Your task to perform on an android device: Open calendar and show me the second week of next month Image 0: 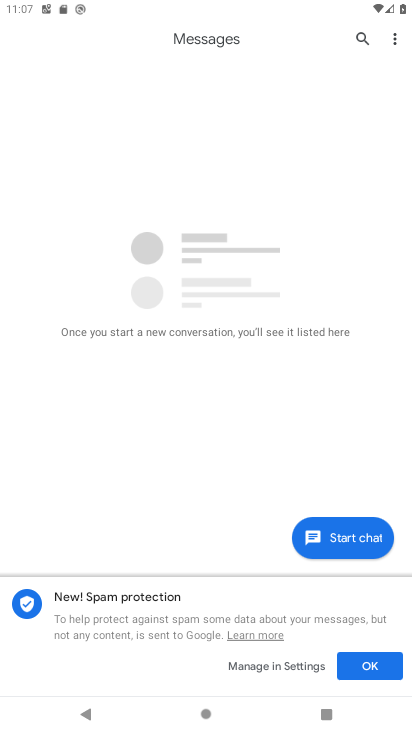
Step 0: press home button
Your task to perform on an android device: Open calendar and show me the second week of next month Image 1: 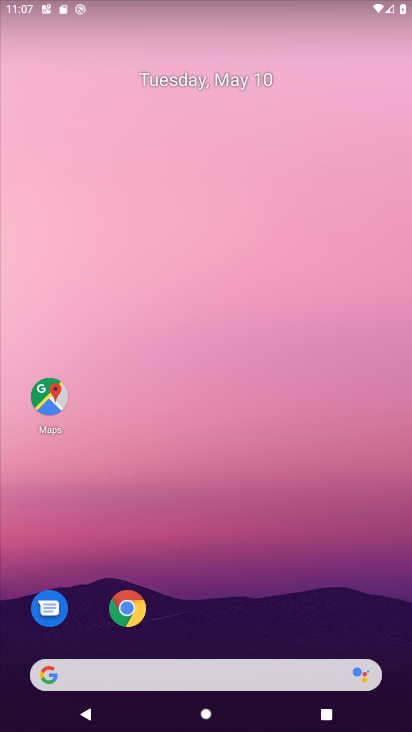
Step 1: drag from (200, 670) to (194, 270)
Your task to perform on an android device: Open calendar and show me the second week of next month Image 2: 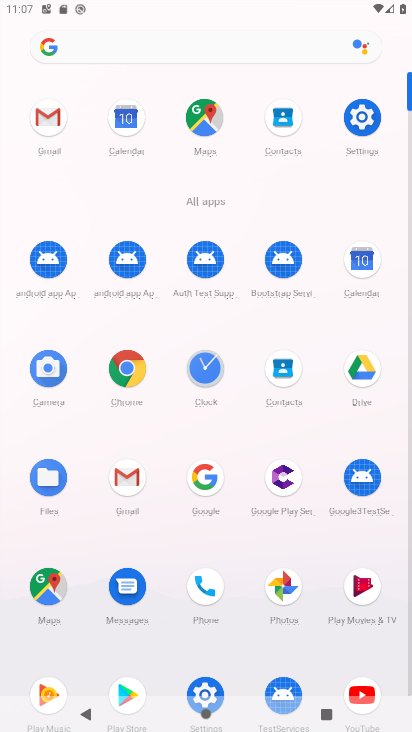
Step 2: click (361, 267)
Your task to perform on an android device: Open calendar and show me the second week of next month Image 3: 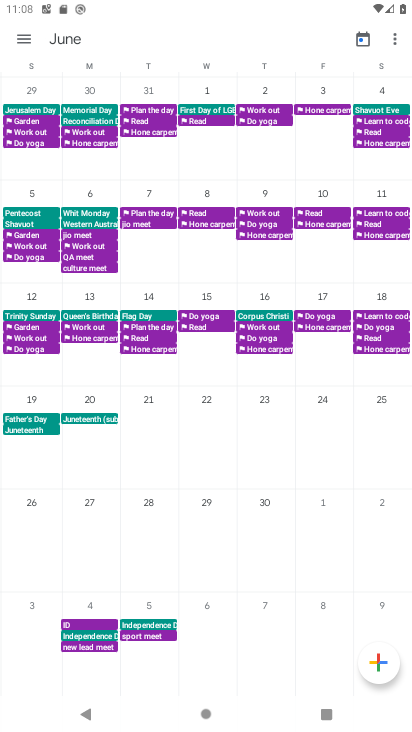
Step 3: task complete